Your task to perform on an android device: Clear the cart on target.com. Search for jbl flip 4 on target.com, select the first entry, add it to the cart, then select checkout. Image 0: 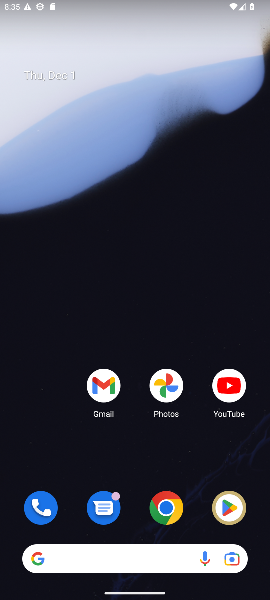
Step 0: click (165, 508)
Your task to perform on an android device: Clear the cart on target.com. Search for jbl flip 4 on target.com, select the first entry, add it to the cart, then select checkout. Image 1: 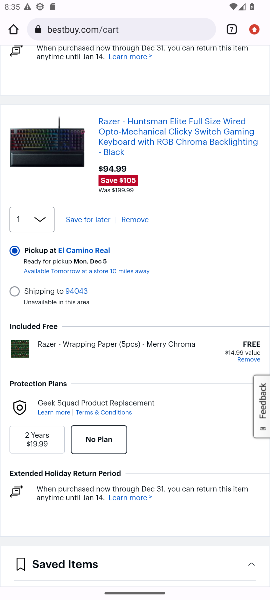
Step 1: click (230, 32)
Your task to perform on an android device: Clear the cart on target.com. Search for jbl flip 4 on target.com, select the first entry, add it to the cart, then select checkout. Image 2: 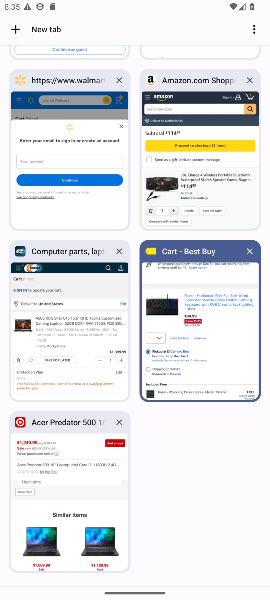
Step 2: click (57, 439)
Your task to perform on an android device: Clear the cart on target.com. Search for jbl flip 4 on target.com, select the first entry, add it to the cart, then select checkout. Image 3: 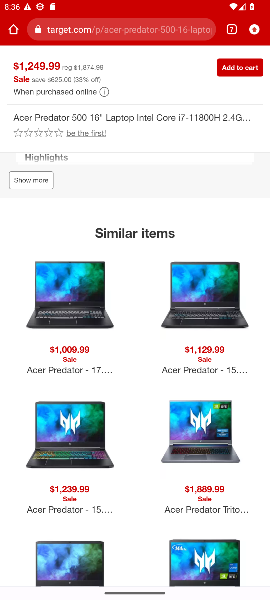
Step 3: drag from (137, 154) to (121, 425)
Your task to perform on an android device: Clear the cart on target.com. Search for jbl flip 4 on target.com, select the first entry, add it to the cart, then select checkout. Image 4: 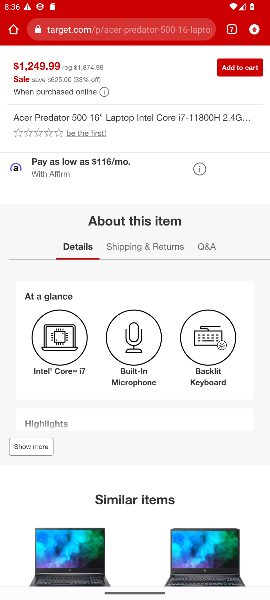
Step 4: drag from (192, 143) to (167, 466)
Your task to perform on an android device: Clear the cart on target.com. Search for jbl flip 4 on target.com, select the first entry, add it to the cart, then select checkout. Image 5: 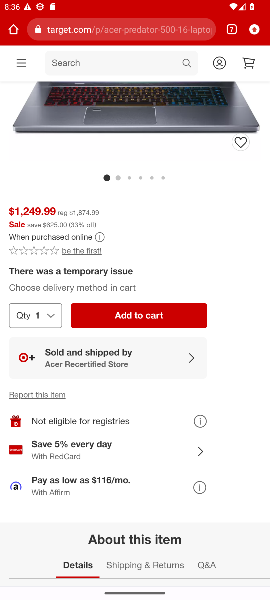
Step 5: drag from (225, 158) to (226, 293)
Your task to perform on an android device: Clear the cart on target.com. Search for jbl flip 4 on target.com, select the first entry, add it to the cart, then select checkout. Image 6: 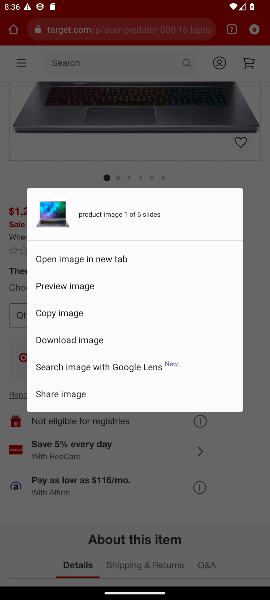
Step 6: click (248, 66)
Your task to perform on an android device: Clear the cart on target.com. Search for jbl flip 4 on target.com, select the first entry, add it to the cart, then select checkout. Image 7: 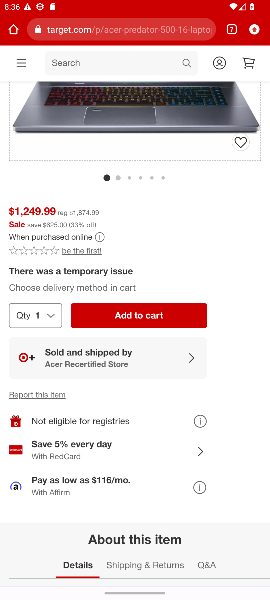
Step 7: click (248, 66)
Your task to perform on an android device: Clear the cart on target.com. Search for jbl flip 4 on target.com, select the first entry, add it to the cart, then select checkout. Image 8: 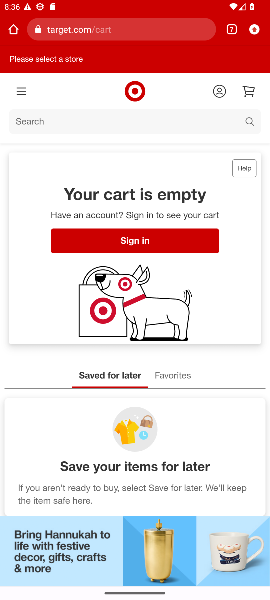
Step 8: click (113, 118)
Your task to perform on an android device: Clear the cart on target.com. Search for jbl flip 4 on target.com, select the first entry, add it to the cart, then select checkout. Image 9: 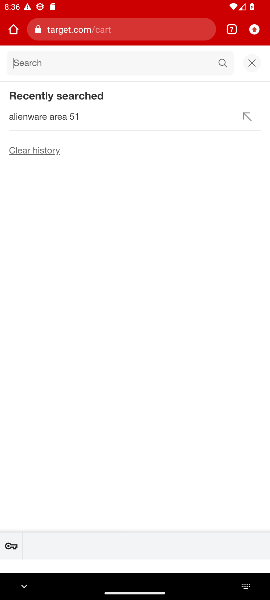
Step 9: type "jbl flip 4"
Your task to perform on an android device: Clear the cart on target.com. Search for jbl flip 4 on target.com, select the first entry, add it to the cart, then select checkout. Image 10: 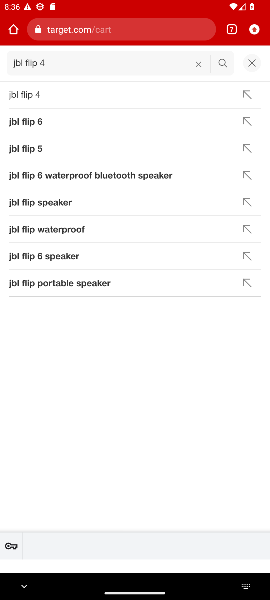
Step 10: click (220, 59)
Your task to perform on an android device: Clear the cart on target.com. Search for jbl flip 4 on target.com, select the first entry, add it to the cart, then select checkout. Image 11: 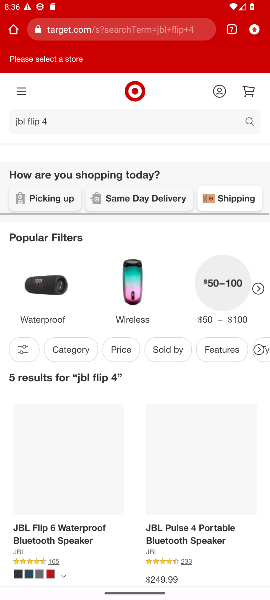
Step 11: task complete